Your task to perform on an android device: Go to display settings Image 0: 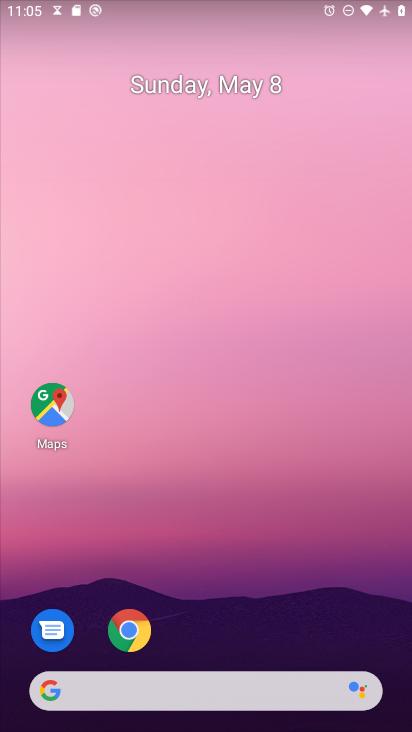
Step 0: drag from (196, 688) to (310, 105)
Your task to perform on an android device: Go to display settings Image 1: 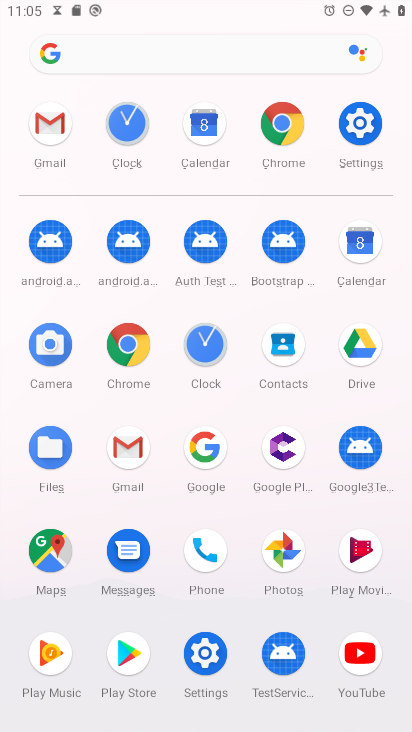
Step 1: click (358, 124)
Your task to perform on an android device: Go to display settings Image 2: 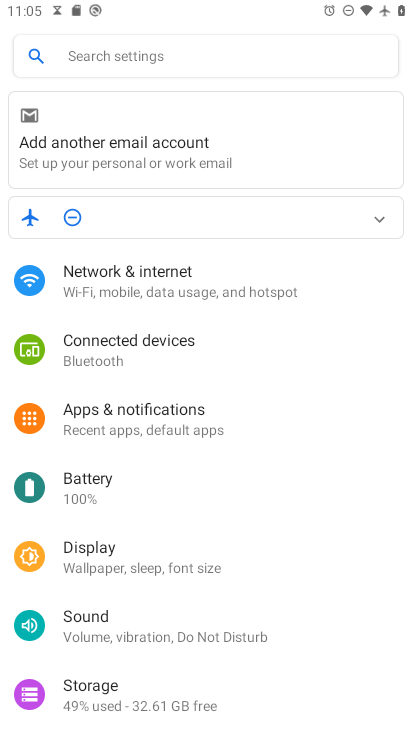
Step 2: click (158, 563)
Your task to perform on an android device: Go to display settings Image 3: 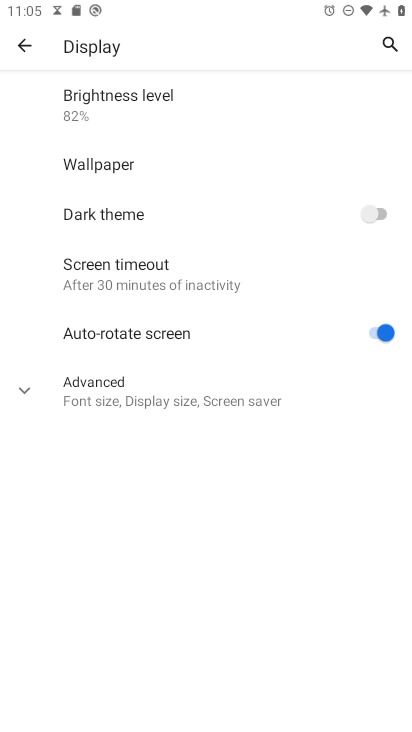
Step 3: task complete